Your task to perform on an android device: Open display settings Image 0: 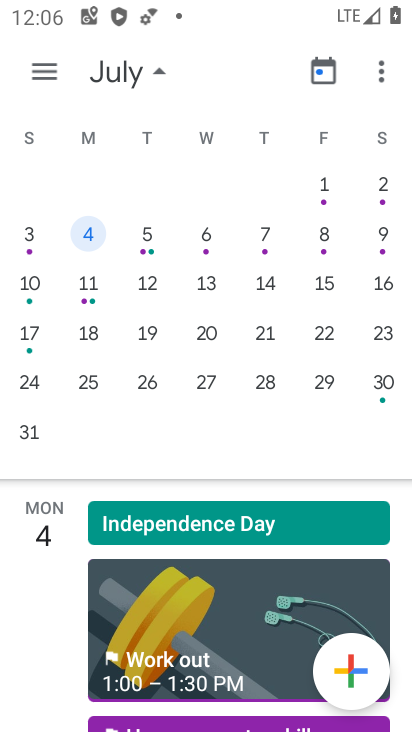
Step 0: press home button
Your task to perform on an android device: Open display settings Image 1: 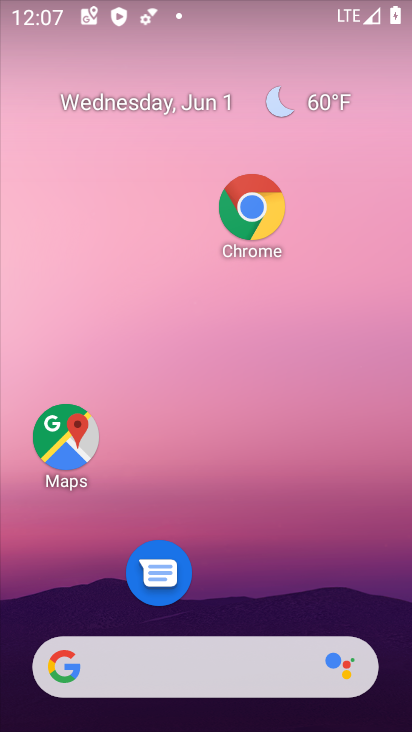
Step 1: drag from (216, 606) to (197, 124)
Your task to perform on an android device: Open display settings Image 2: 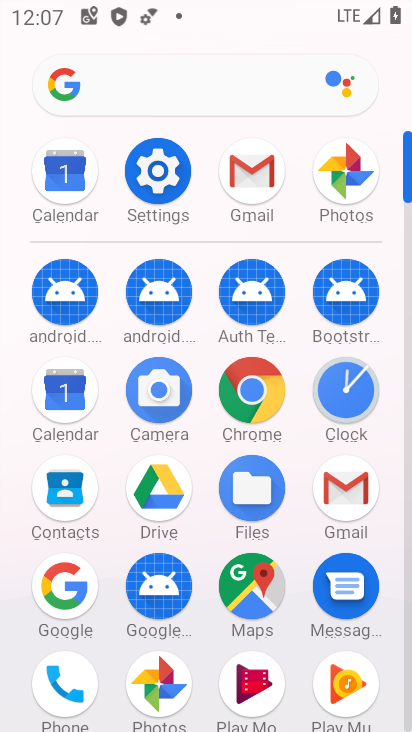
Step 2: click (182, 179)
Your task to perform on an android device: Open display settings Image 3: 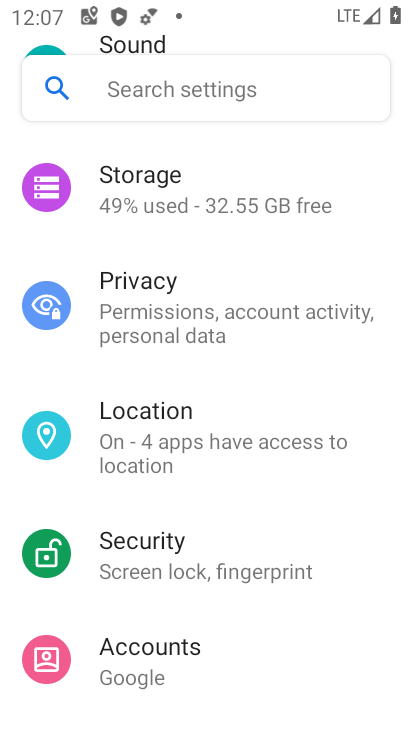
Step 3: drag from (186, 181) to (194, 522)
Your task to perform on an android device: Open display settings Image 4: 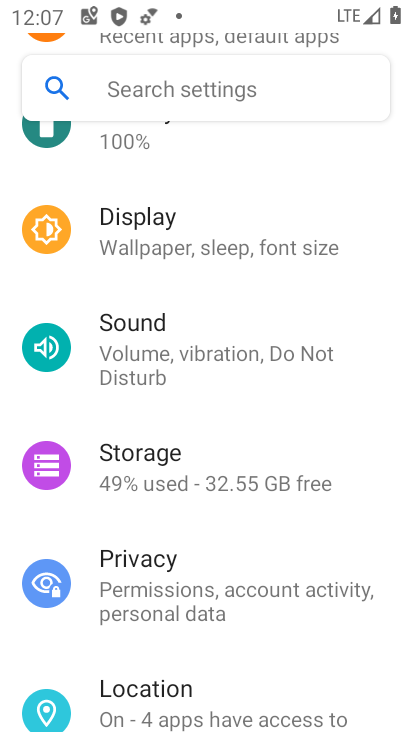
Step 4: click (164, 255)
Your task to perform on an android device: Open display settings Image 5: 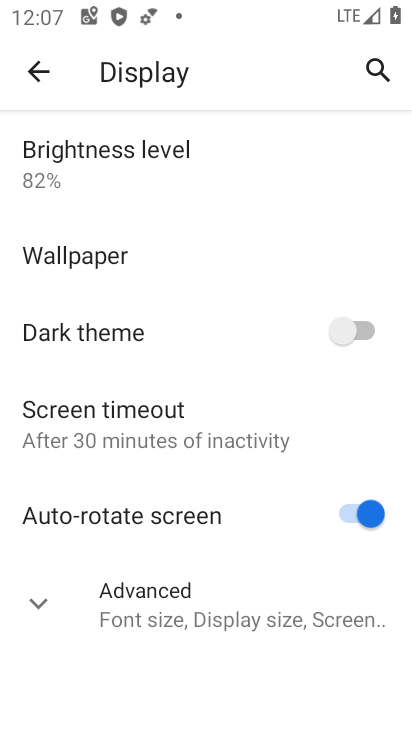
Step 5: task complete